Your task to perform on an android device: turn on sleep mode Image 0: 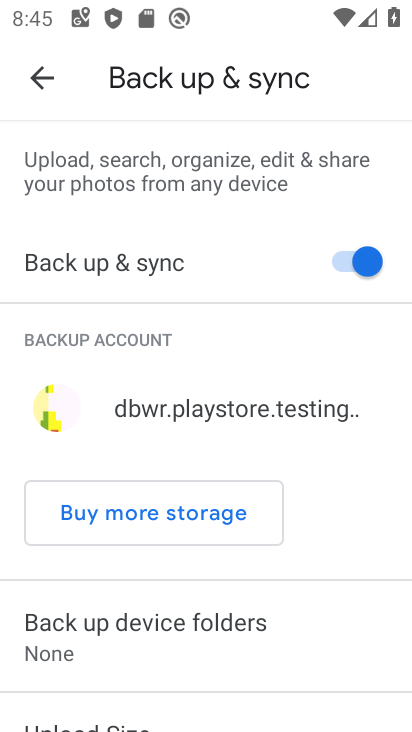
Step 0: press home button
Your task to perform on an android device: turn on sleep mode Image 1: 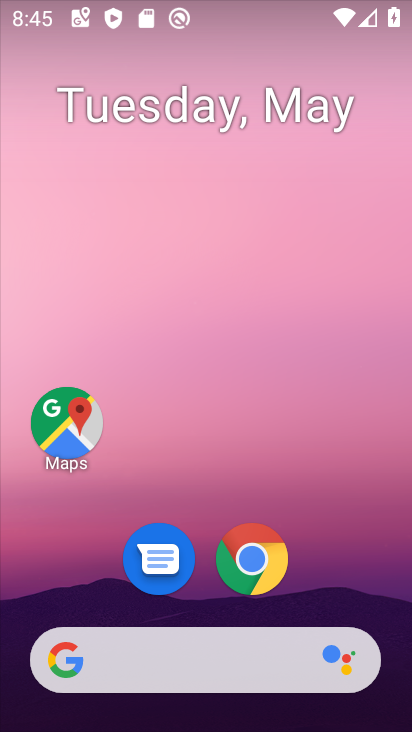
Step 1: drag from (179, 662) to (179, 33)
Your task to perform on an android device: turn on sleep mode Image 2: 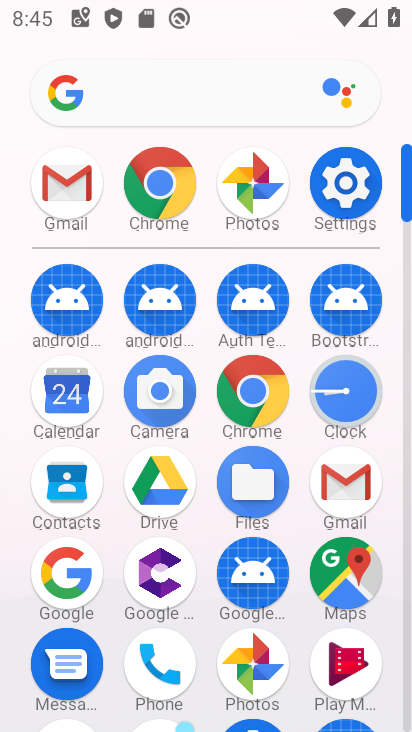
Step 2: click (358, 176)
Your task to perform on an android device: turn on sleep mode Image 3: 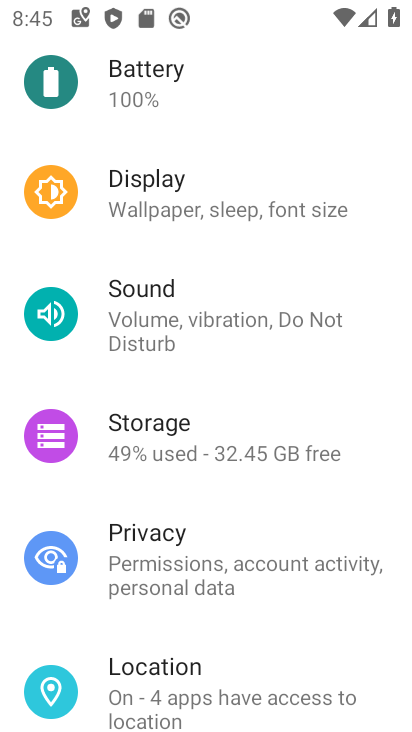
Step 3: click (215, 207)
Your task to perform on an android device: turn on sleep mode Image 4: 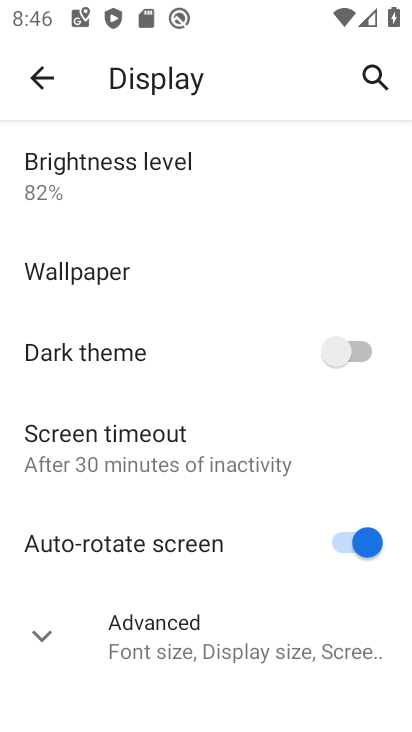
Step 4: click (149, 654)
Your task to perform on an android device: turn on sleep mode Image 5: 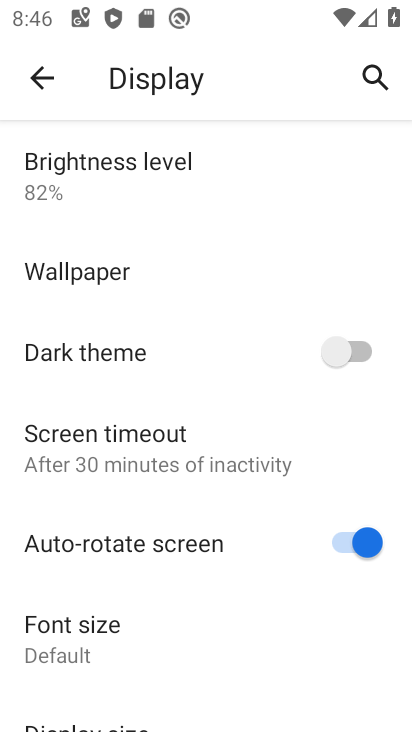
Step 5: task complete